Your task to perform on an android device: toggle sleep mode Image 0: 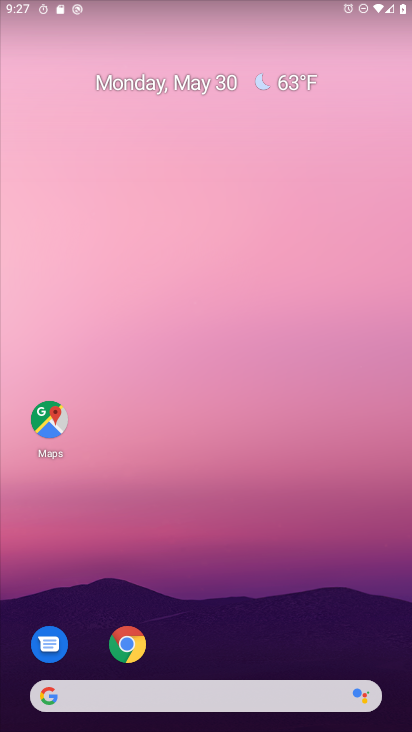
Step 0: drag from (207, 621) to (187, 69)
Your task to perform on an android device: toggle sleep mode Image 1: 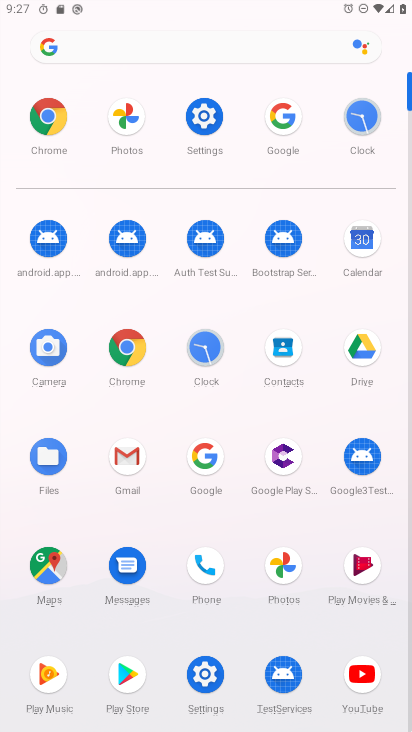
Step 1: click (203, 119)
Your task to perform on an android device: toggle sleep mode Image 2: 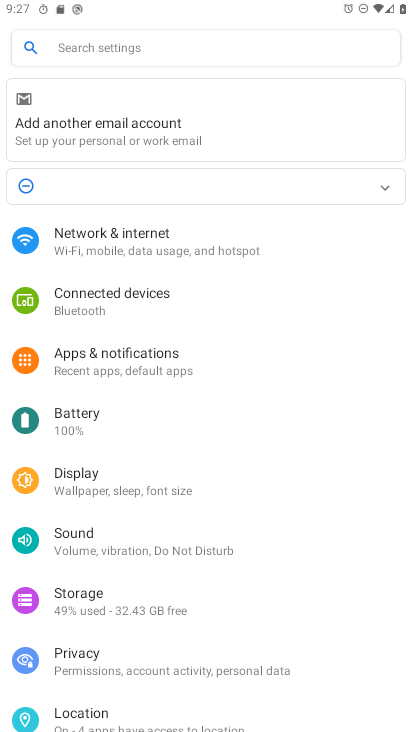
Step 2: click (96, 483)
Your task to perform on an android device: toggle sleep mode Image 3: 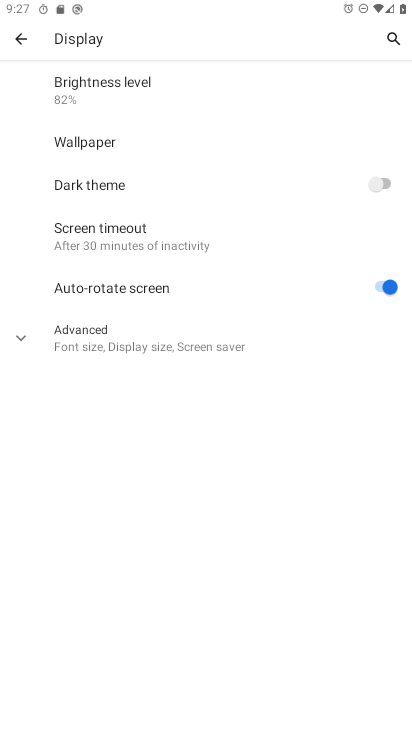
Step 3: click (115, 230)
Your task to perform on an android device: toggle sleep mode Image 4: 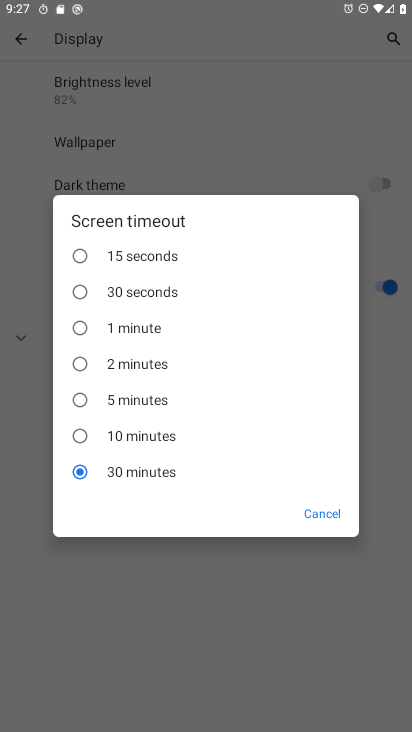
Step 4: click (84, 364)
Your task to perform on an android device: toggle sleep mode Image 5: 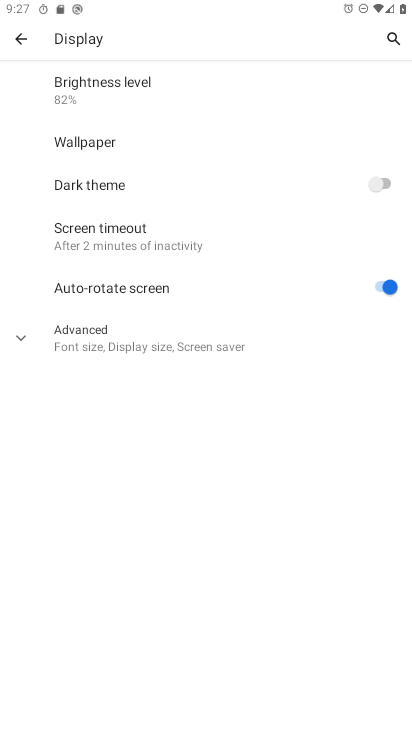
Step 5: task complete